Your task to perform on an android device: Go to Reddit.com Image 0: 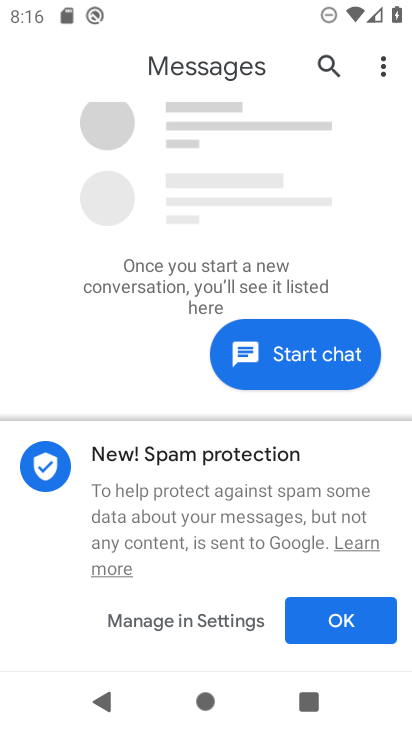
Step 0: press home button
Your task to perform on an android device: Go to Reddit.com Image 1: 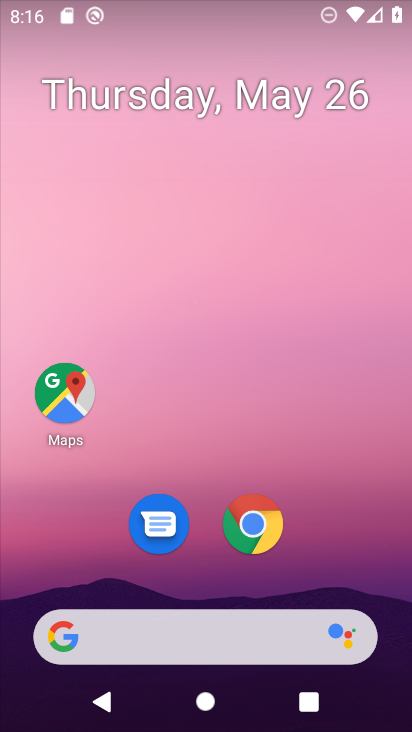
Step 1: click (192, 640)
Your task to perform on an android device: Go to Reddit.com Image 2: 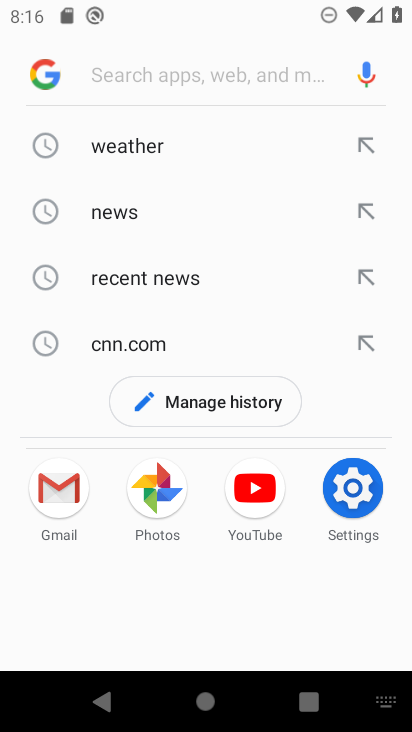
Step 2: type "reddit.com"
Your task to perform on an android device: Go to Reddit.com Image 3: 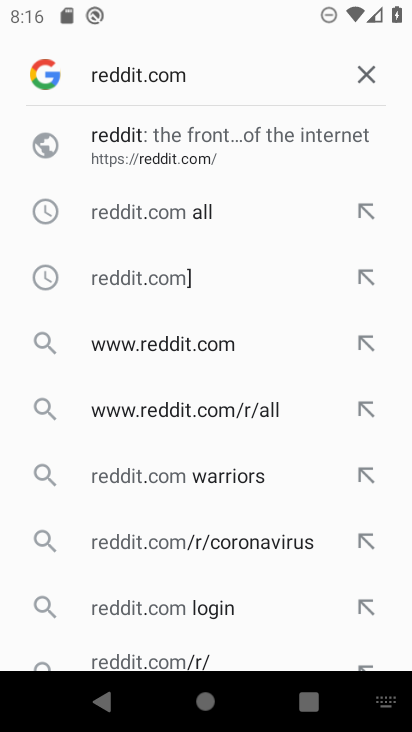
Step 3: click (136, 139)
Your task to perform on an android device: Go to Reddit.com Image 4: 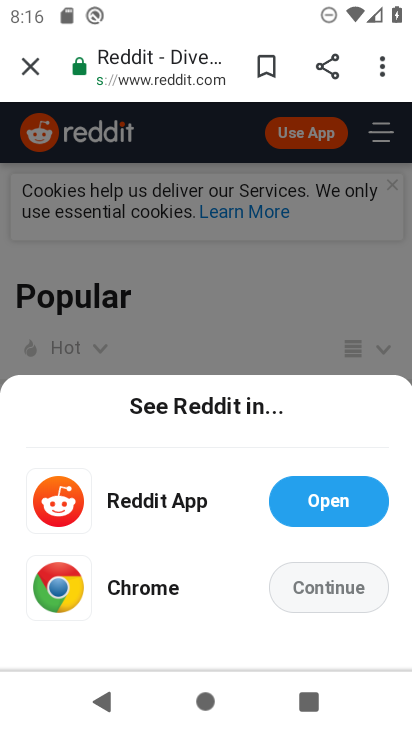
Step 4: task complete